Your task to perform on an android device: turn off picture-in-picture Image 0: 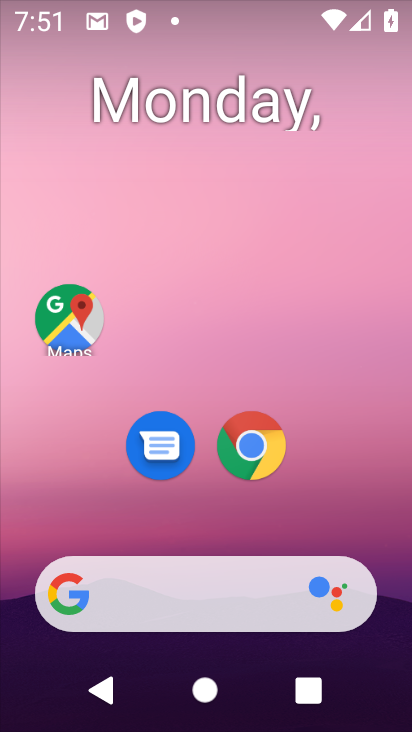
Step 0: click (250, 446)
Your task to perform on an android device: turn off picture-in-picture Image 1: 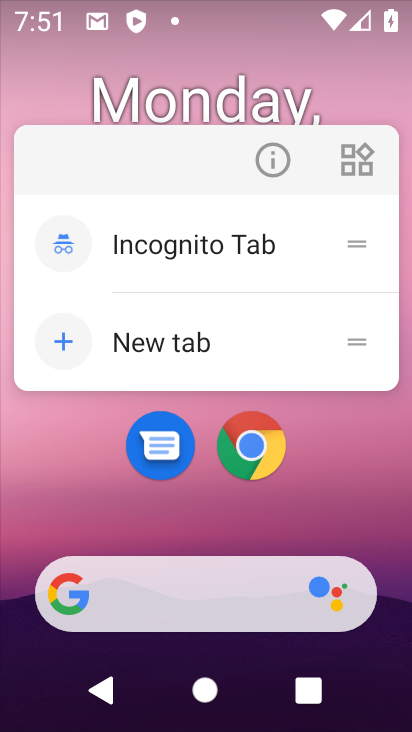
Step 1: click (282, 162)
Your task to perform on an android device: turn off picture-in-picture Image 2: 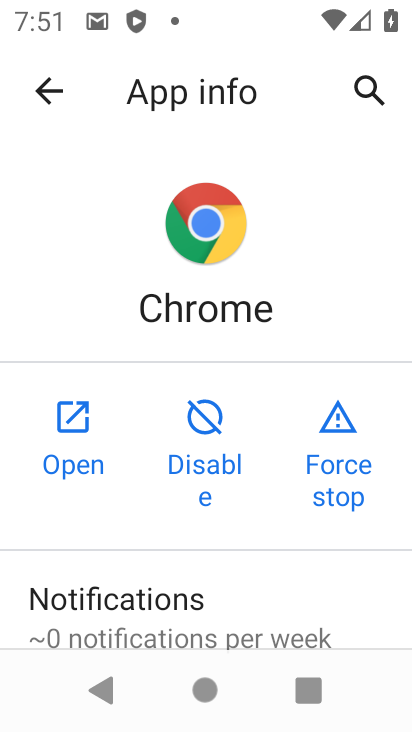
Step 2: drag from (281, 549) to (200, 4)
Your task to perform on an android device: turn off picture-in-picture Image 3: 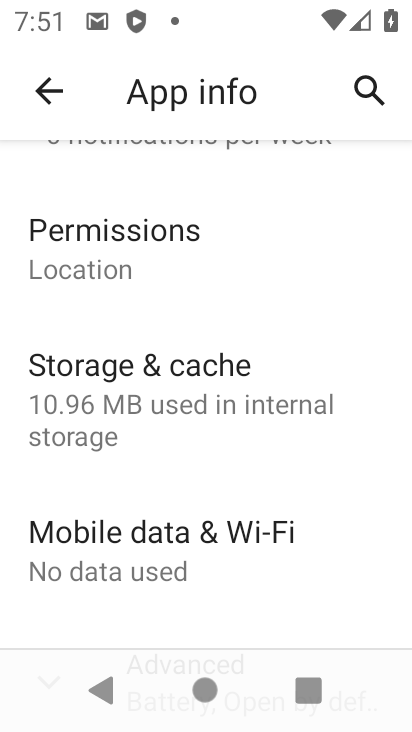
Step 3: drag from (274, 554) to (263, 151)
Your task to perform on an android device: turn off picture-in-picture Image 4: 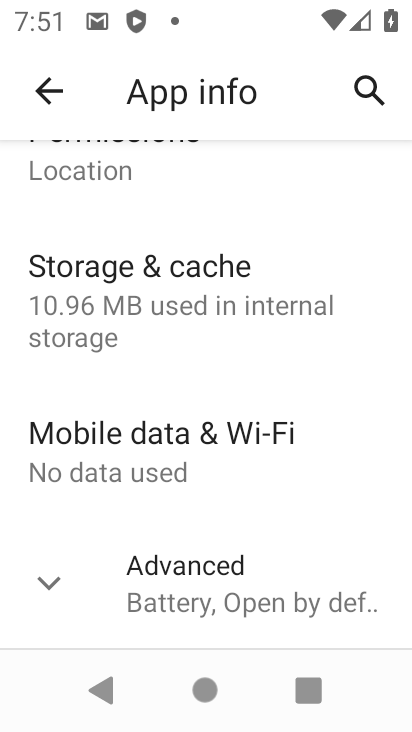
Step 4: drag from (257, 590) to (198, 85)
Your task to perform on an android device: turn off picture-in-picture Image 5: 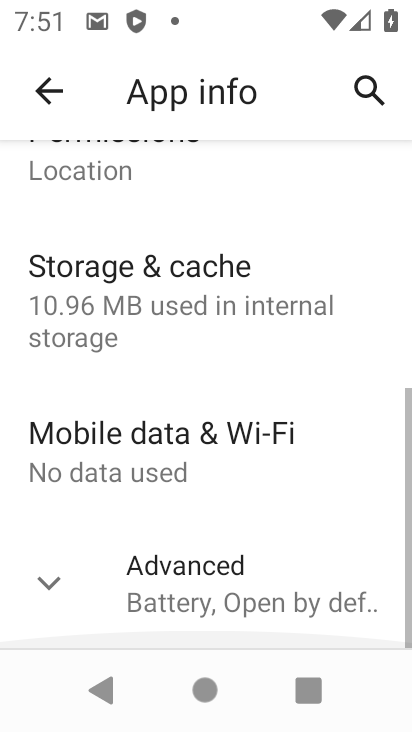
Step 5: click (259, 597)
Your task to perform on an android device: turn off picture-in-picture Image 6: 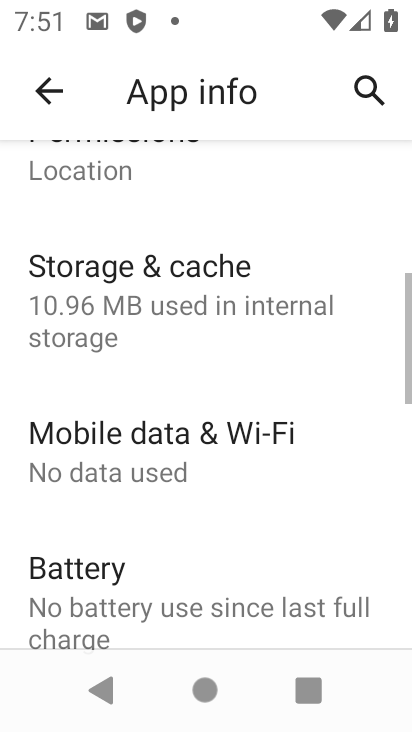
Step 6: drag from (257, 587) to (219, 20)
Your task to perform on an android device: turn off picture-in-picture Image 7: 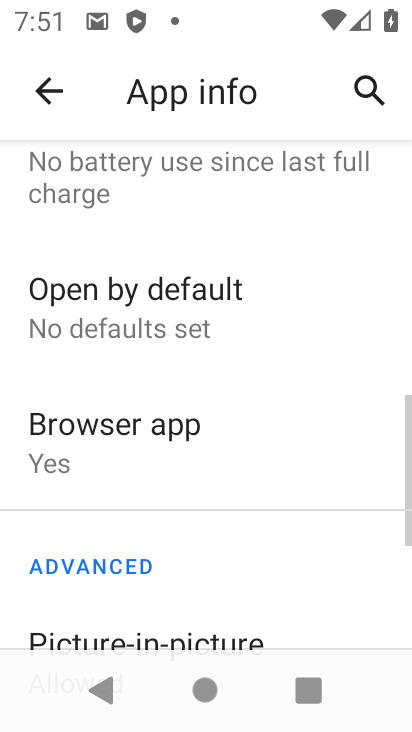
Step 7: drag from (240, 540) to (252, 19)
Your task to perform on an android device: turn off picture-in-picture Image 8: 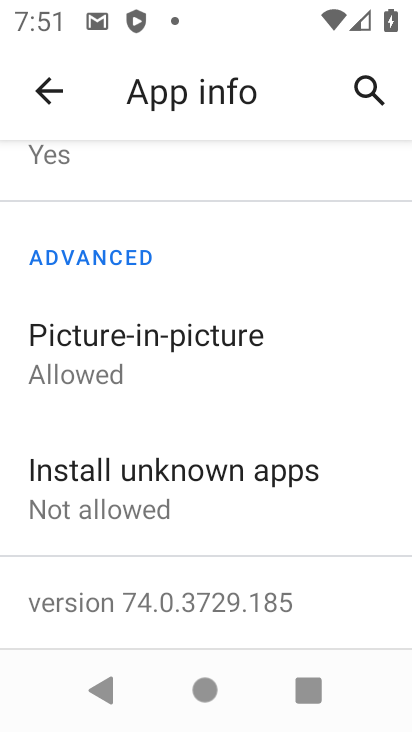
Step 8: click (221, 351)
Your task to perform on an android device: turn off picture-in-picture Image 9: 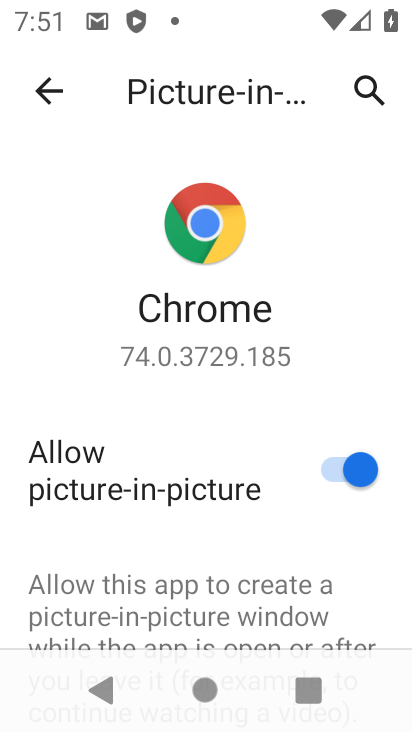
Step 9: click (373, 471)
Your task to perform on an android device: turn off picture-in-picture Image 10: 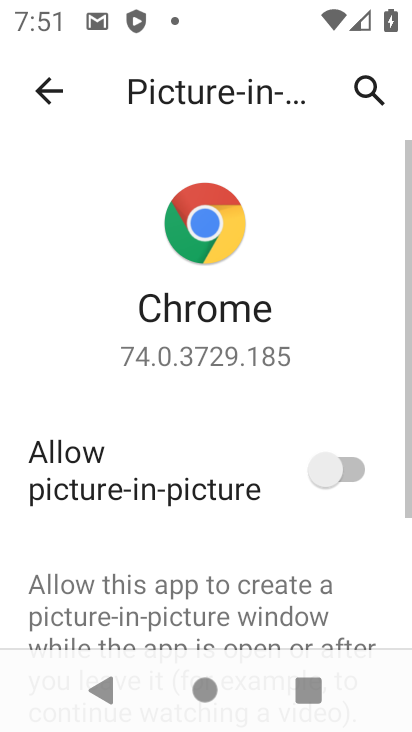
Step 10: task complete